Your task to perform on an android device: toggle pop-ups in chrome Image 0: 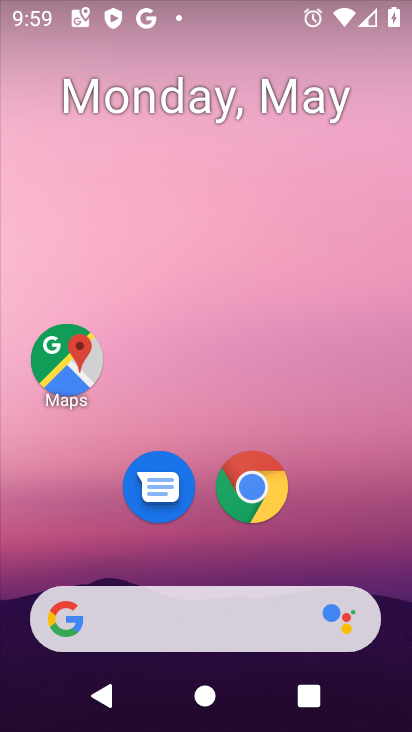
Step 0: click (245, 489)
Your task to perform on an android device: toggle pop-ups in chrome Image 1: 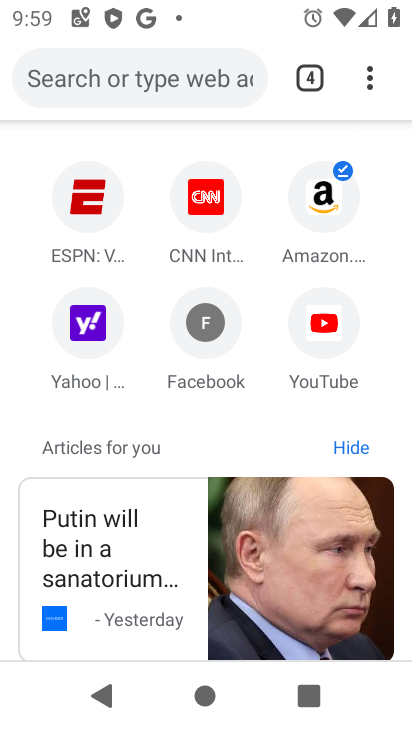
Step 1: click (378, 74)
Your task to perform on an android device: toggle pop-ups in chrome Image 2: 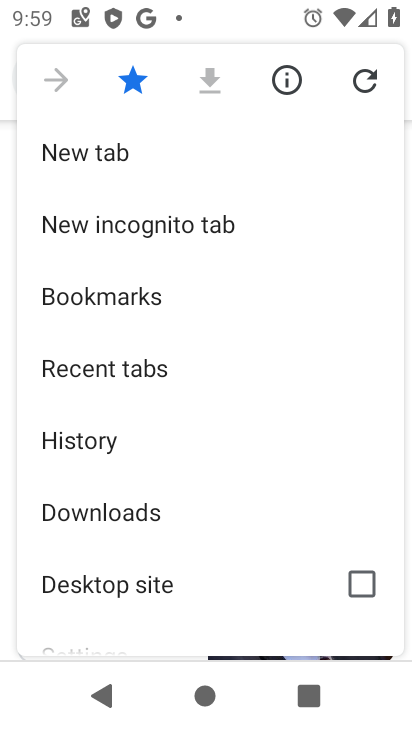
Step 2: drag from (99, 615) to (178, 180)
Your task to perform on an android device: toggle pop-ups in chrome Image 3: 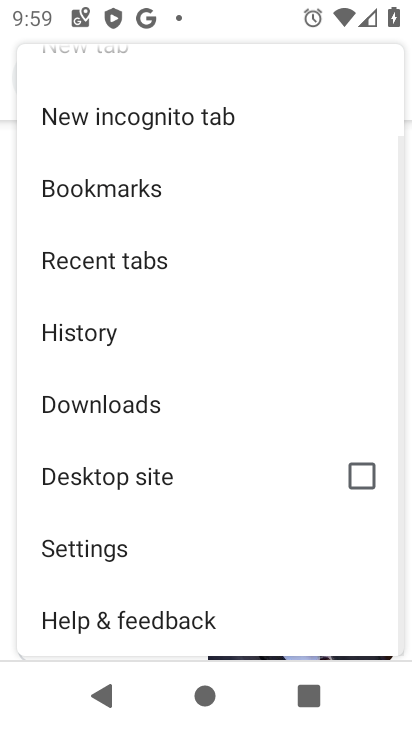
Step 3: click (76, 545)
Your task to perform on an android device: toggle pop-ups in chrome Image 4: 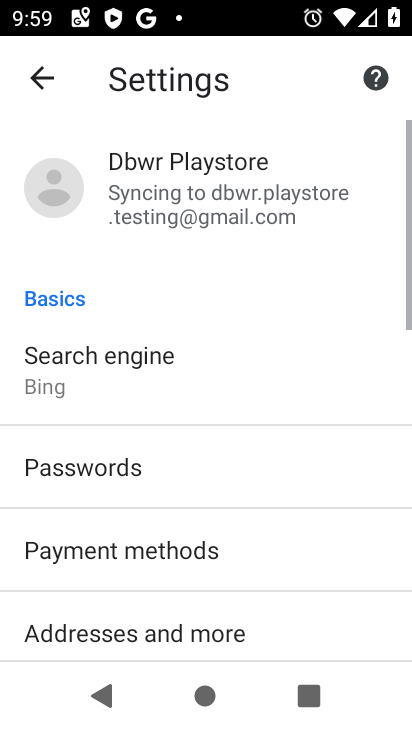
Step 4: drag from (76, 545) to (163, 85)
Your task to perform on an android device: toggle pop-ups in chrome Image 5: 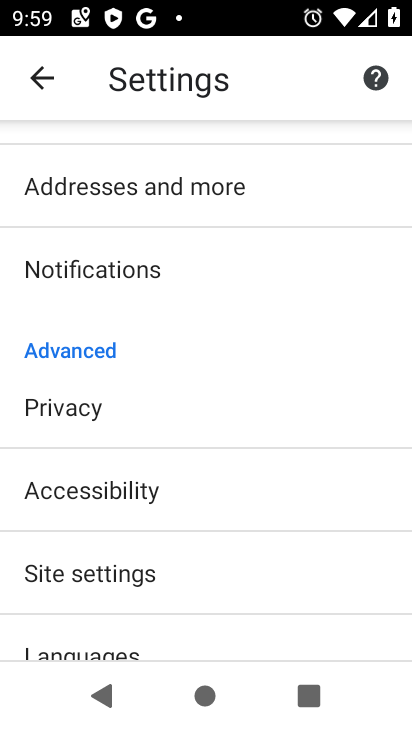
Step 5: drag from (78, 573) to (154, 204)
Your task to perform on an android device: toggle pop-ups in chrome Image 6: 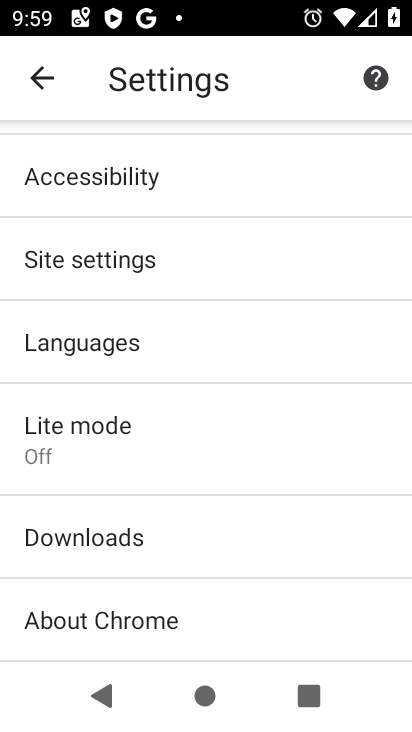
Step 6: click (193, 276)
Your task to perform on an android device: toggle pop-ups in chrome Image 7: 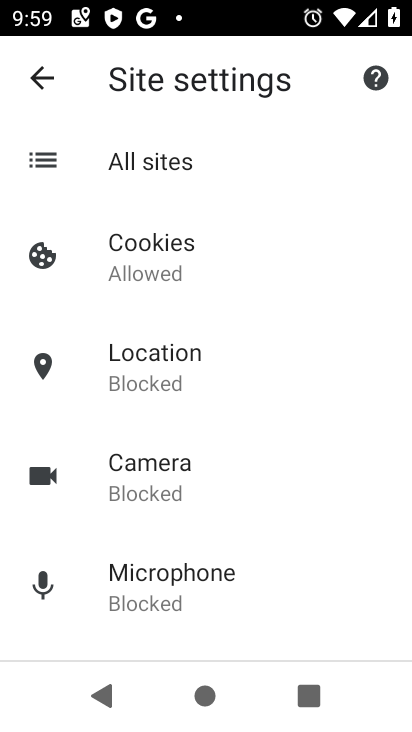
Step 7: drag from (90, 617) to (140, 161)
Your task to perform on an android device: toggle pop-ups in chrome Image 8: 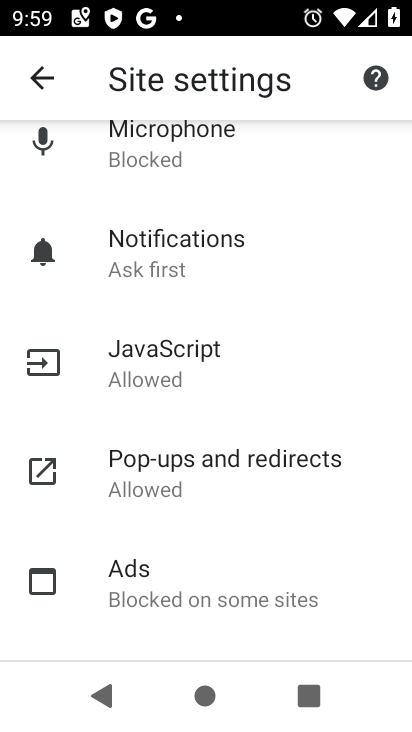
Step 8: click (162, 472)
Your task to perform on an android device: toggle pop-ups in chrome Image 9: 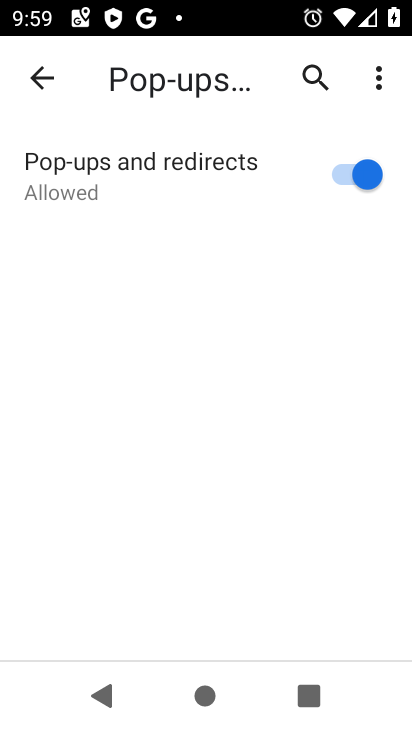
Step 9: click (370, 165)
Your task to perform on an android device: toggle pop-ups in chrome Image 10: 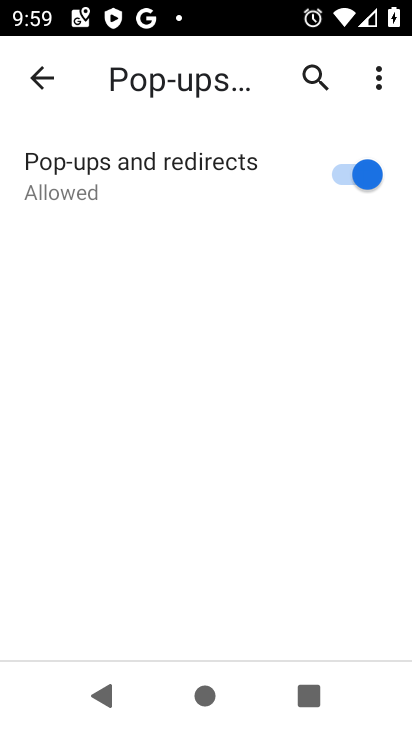
Step 10: click (370, 165)
Your task to perform on an android device: toggle pop-ups in chrome Image 11: 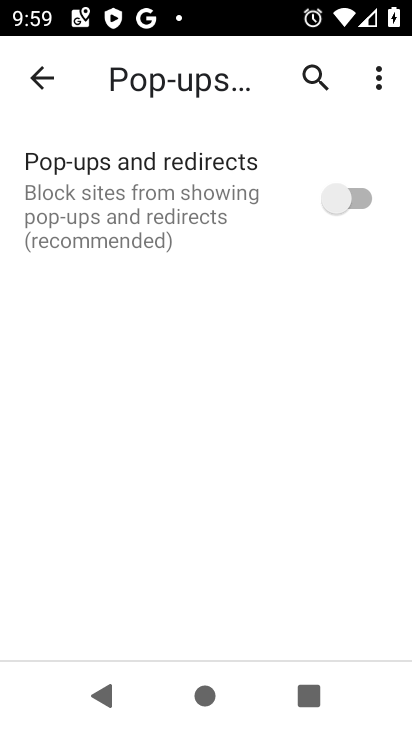
Step 11: click (370, 165)
Your task to perform on an android device: toggle pop-ups in chrome Image 12: 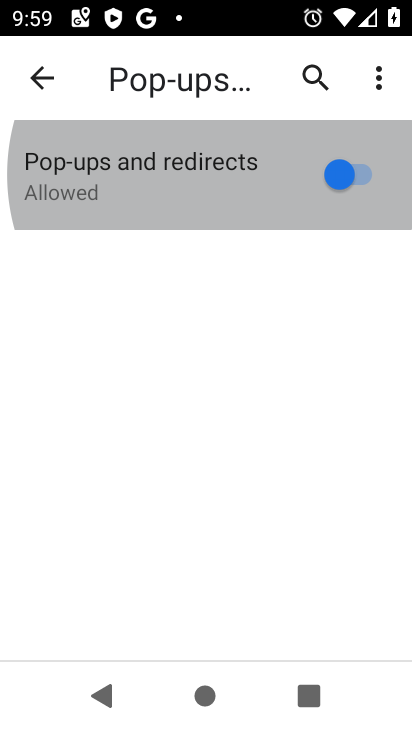
Step 12: click (370, 165)
Your task to perform on an android device: toggle pop-ups in chrome Image 13: 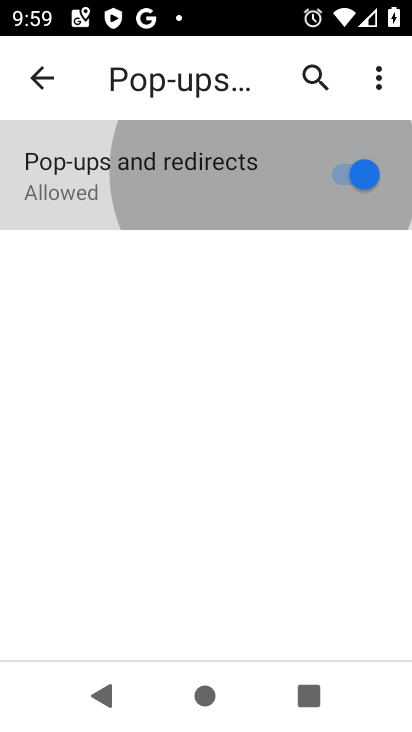
Step 13: click (370, 165)
Your task to perform on an android device: toggle pop-ups in chrome Image 14: 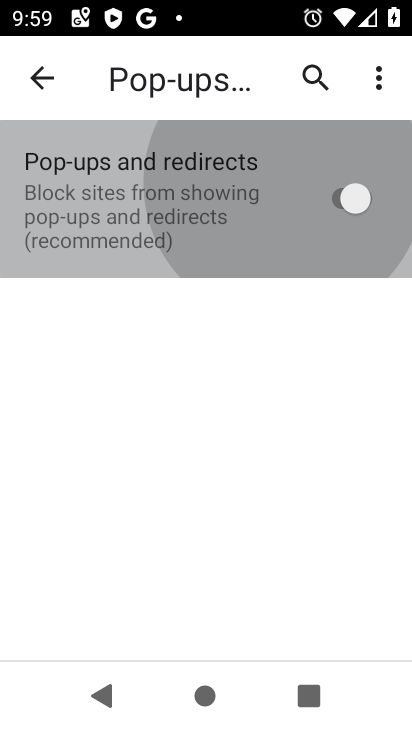
Step 14: click (370, 165)
Your task to perform on an android device: toggle pop-ups in chrome Image 15: 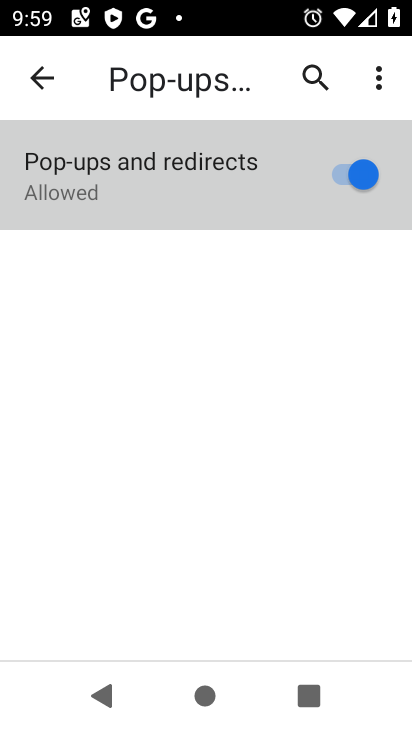
Step 15: click (370, 165)
Your task to perform on an android device: toggle pop-ups in chrome Image 16: 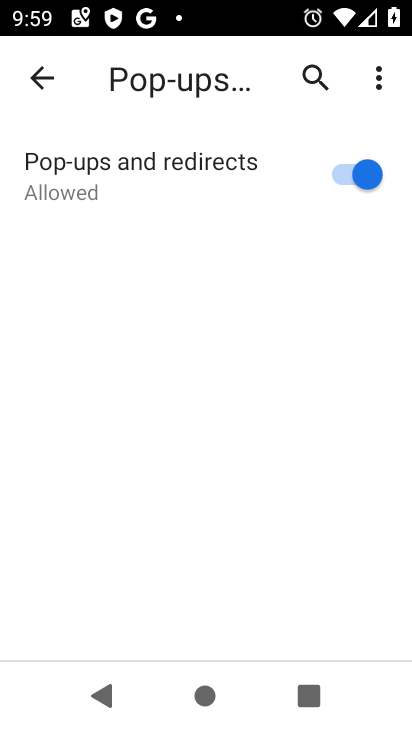
Step 16: task complete